Your task to perform on an android device: open a bookmark in the chrome app Image 0: 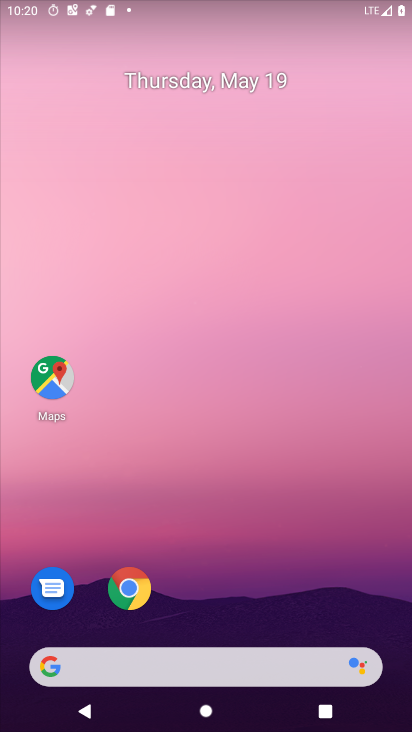
Step 0: click (137, 588)
Your task to perform on an android device: open a bookmark in the chrome app Image 1: 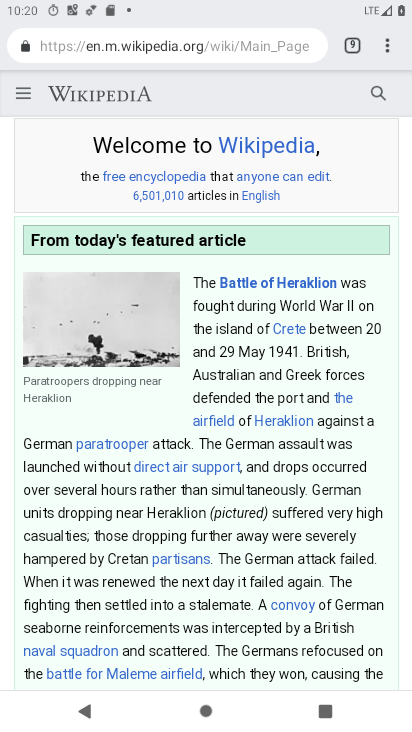
Step 1: task complete